Your task to perform on an android device: Do I have any events this weekend? Image 0: 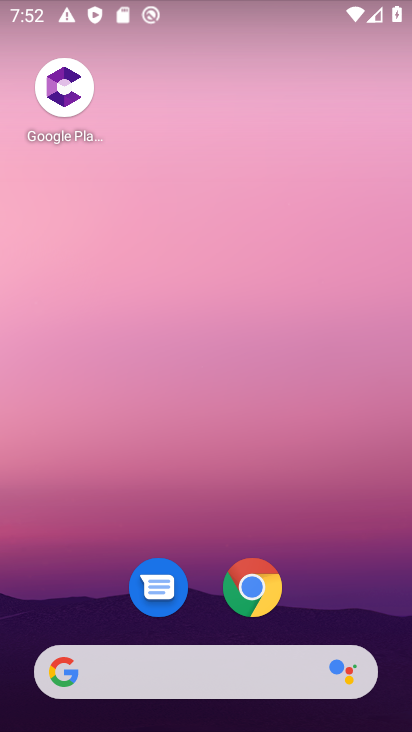
Step 0: drag from (34, 714) to (288, 168)
Your task to perform on an android device: Do I have any events this weekend? Image 1: 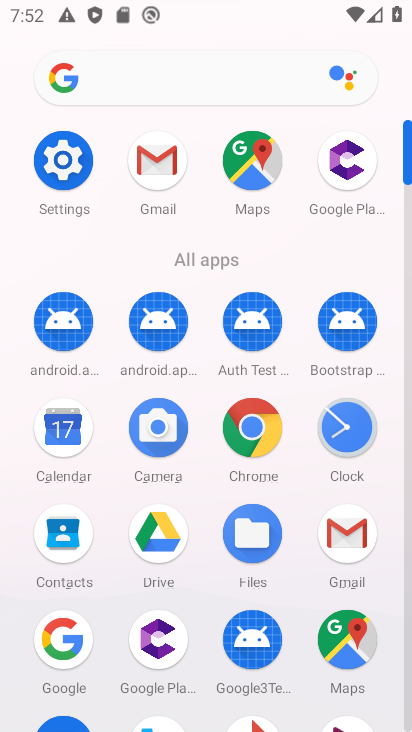
Step 1: click (54, 424)
Your task to perform on an android device: Do I have any events this weekend? Image 2: 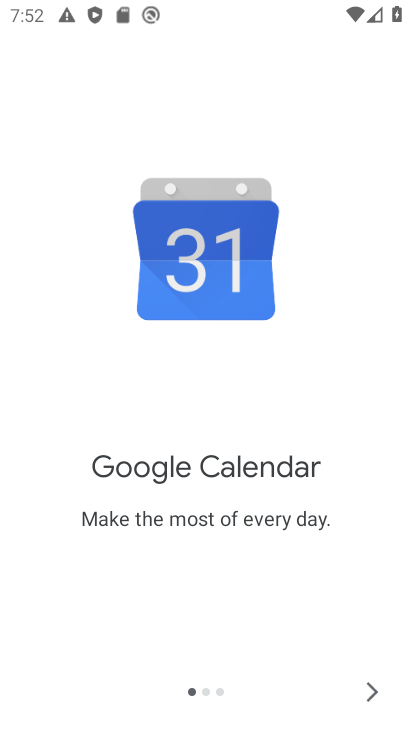
Step 2: click (376, 690)
Your task to perform on an android device: Do I have any events this weekend? Image 3: 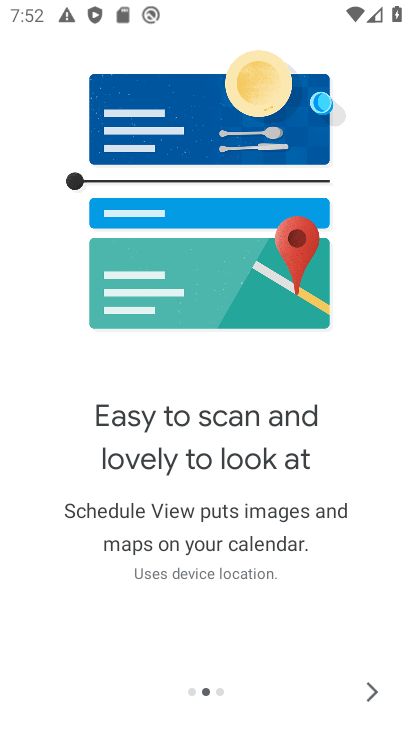
Step 3: click (366, 691)
Your task to perform on an android device: Do I have any events this weekend? Image 4: 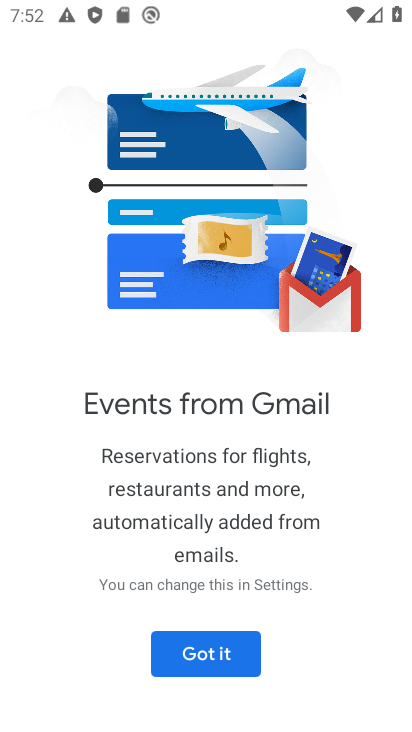
Step 4: click (190, 641)
Your task to perform on an android device: Do I have any events this weekend? Image 5: 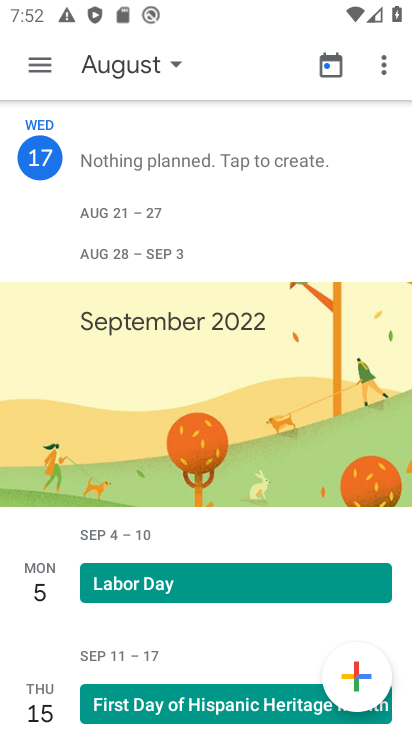
Step 5: click (160, 60)
Your task to perform on an android device: Do I have any events this weekend? Image 6: 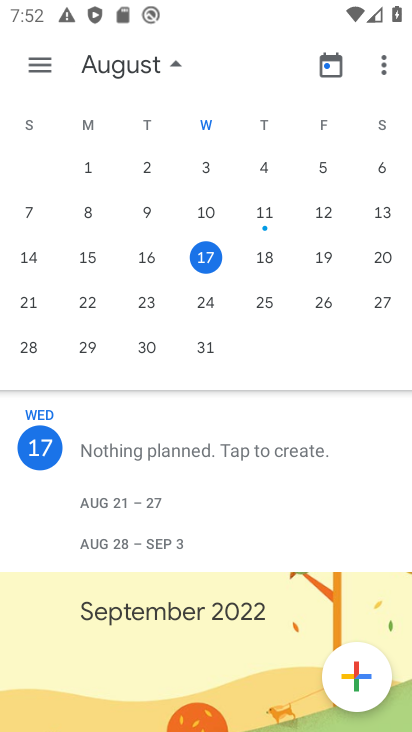
Step 6: task complete